Your task to perform on an android device: choose inbox layout in the gmail app Image 0: 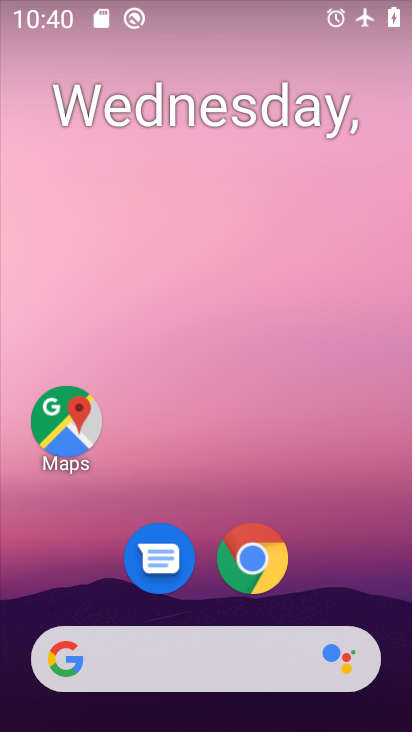
Step 0: drag from (350, 571) to (347, 161)
Your task to perform on an android device: choose inbox layout in the gmail app Image 1: 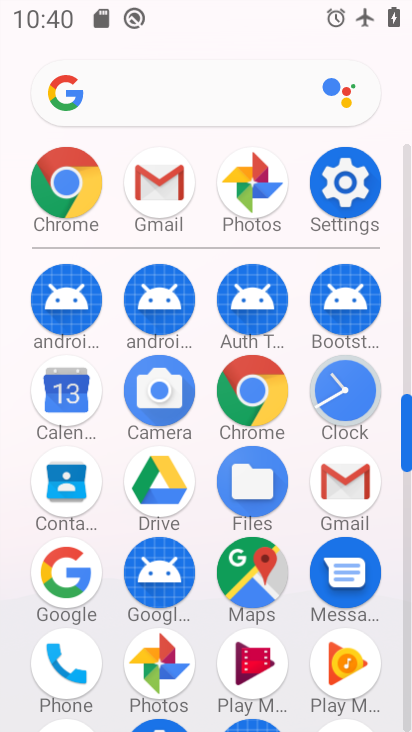
Step 1: click (361, 486)
Your task to perform on an android device: choose inbox layout in the gmail app Image 2: 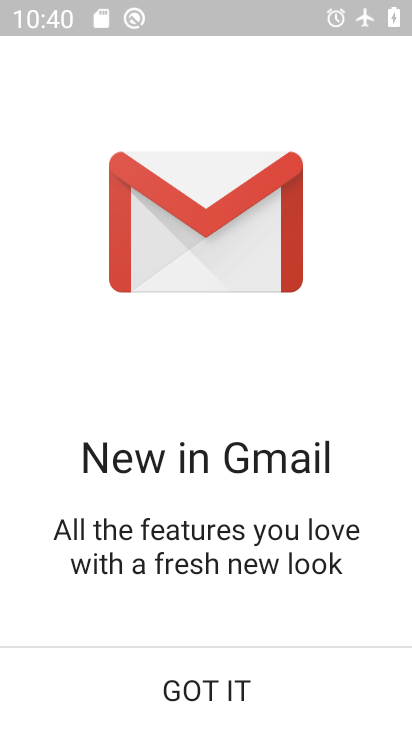
Step 2: click (258, 688)
Your task to perform on an android device: choose inbox layout in the gmail app Image 3: 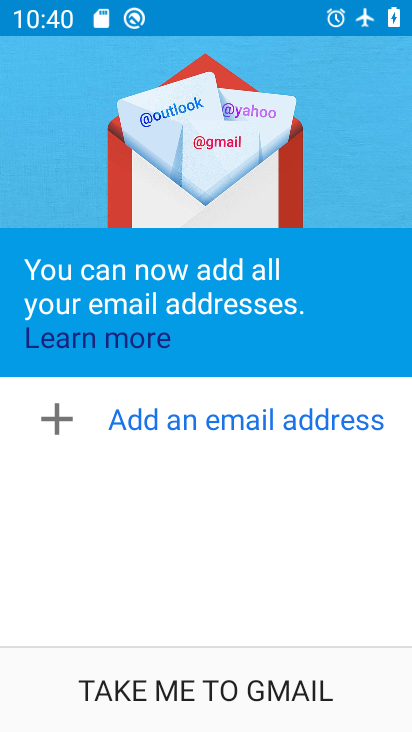
Step 3: click (258, 688)
Your task to perform on an android device: choose inbox layout in the gmail app Image 4: 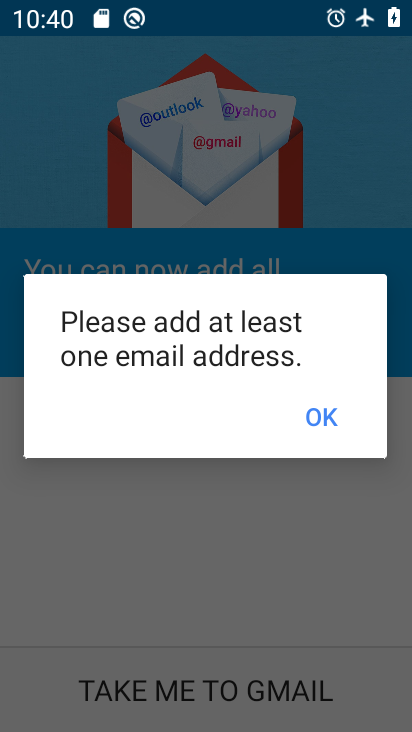
Step 4: task complete